Your task to perform on an android device: toggle wifi Image 0: 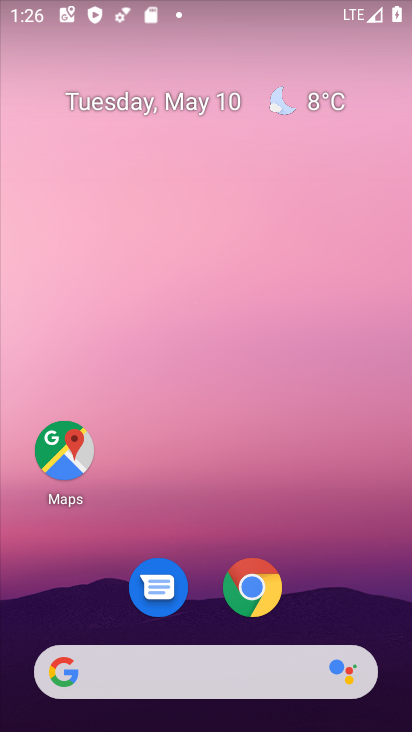
Step 0: drag from (330, 7) to (335, 549)
Your task to perform on an android device: toggle wifi Image 1: 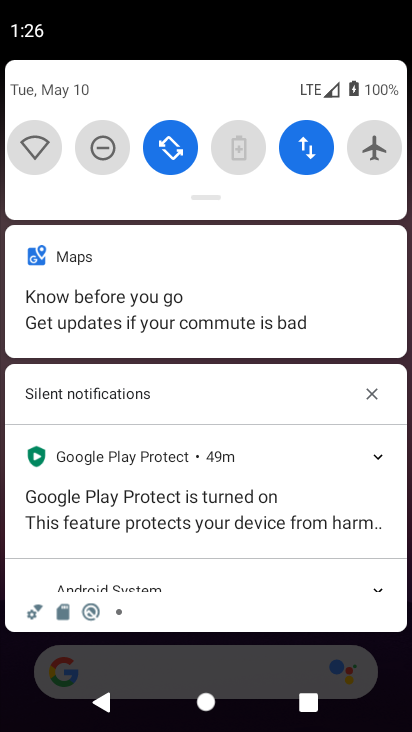
Step 1: click (30, 147)
Your task to perform on an android device: toggle wifi Image 2: 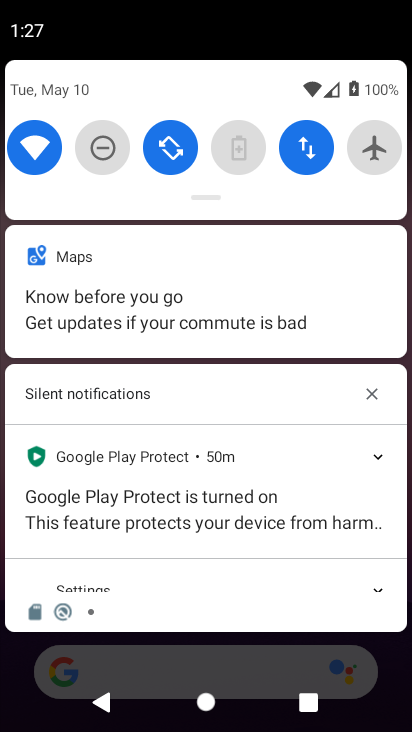
Step 2: task complete